Your task to perform on an android device: Open Youtube and go to the subscriptions tab Image 0: 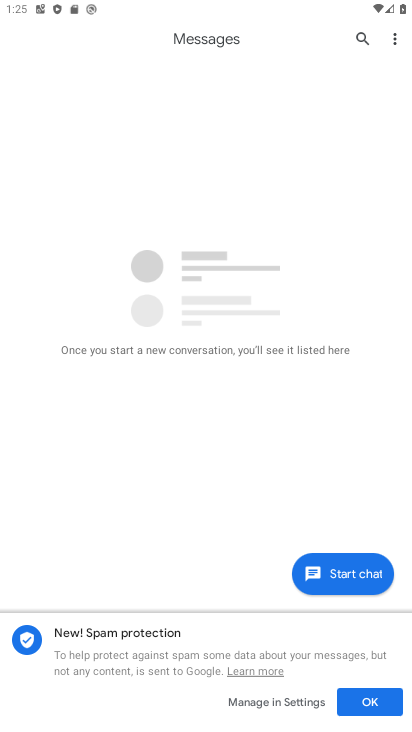
Step 0: press home button
Your task to perform on an android device: Open Youtube and go to the subscriptions tab Image 1: 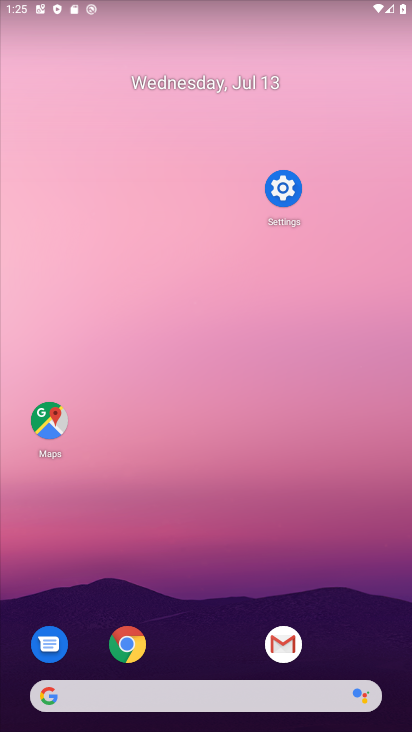
Step 1: drag from (227, 699) to (269, 202)
Your task to perform on an android device: Open Youtube and go to the subscriptions tab Image 2: 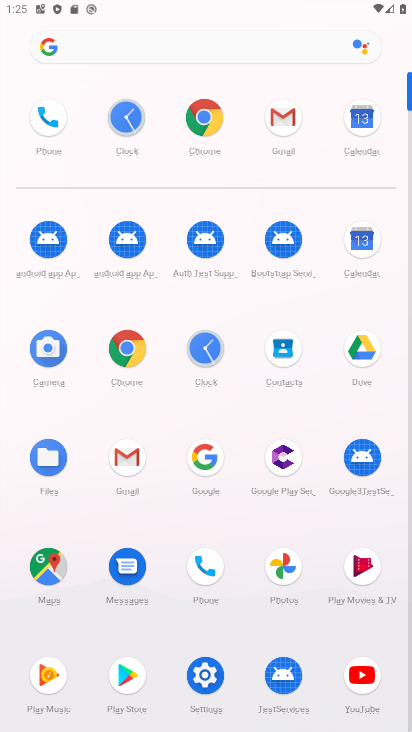
Step 2: click (351, 676)
Your task to perform on an android device: Open Youtube and go to the subscriptions tab Image 3: 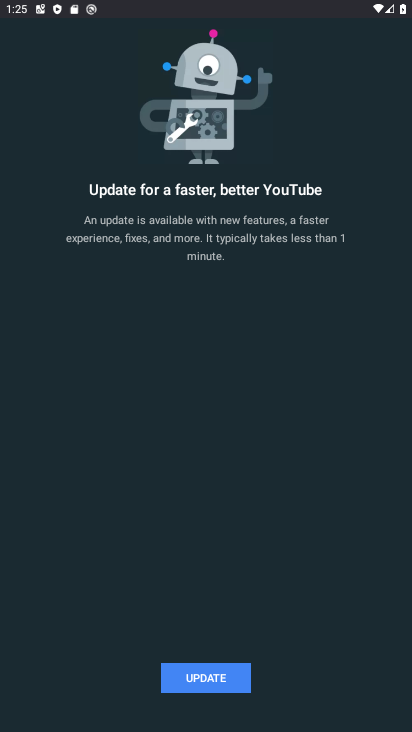
Step 3: click (214, 693)
Your task to perform on an android device: Open Youtube and go to the subscriptions tab Image 4: 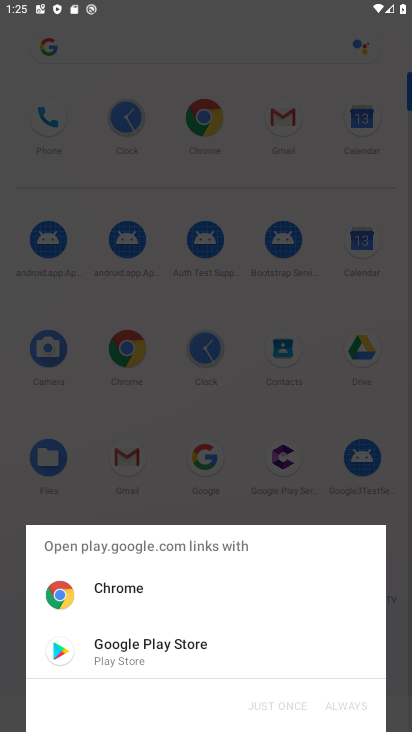
Step 4: click (211, 658)
Your task to perform on an android device: Open Youtube and go to the subscriptions tab Image 5: 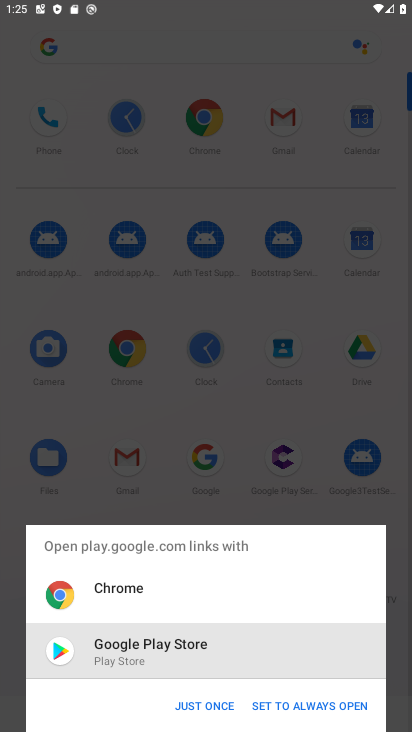
Step 5: click (192, 704)
Your task to perform on an android device: Open Youtube and go to the subscriptions tab Image 6: 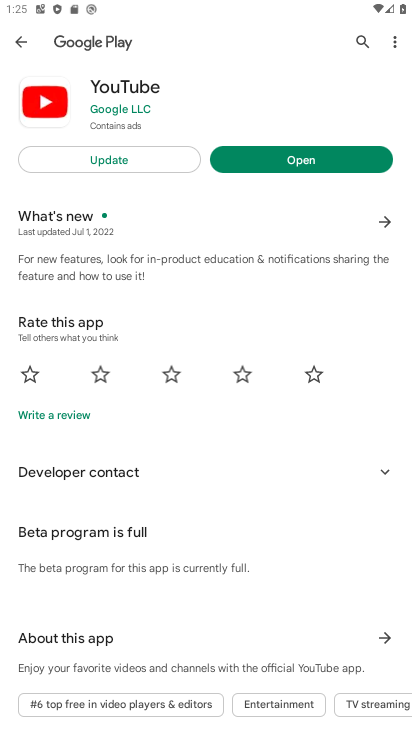
Step 6: click (282, 158)
Your task to perform on an android device: Open Youtube and go to the subscriptions tab Image 7: 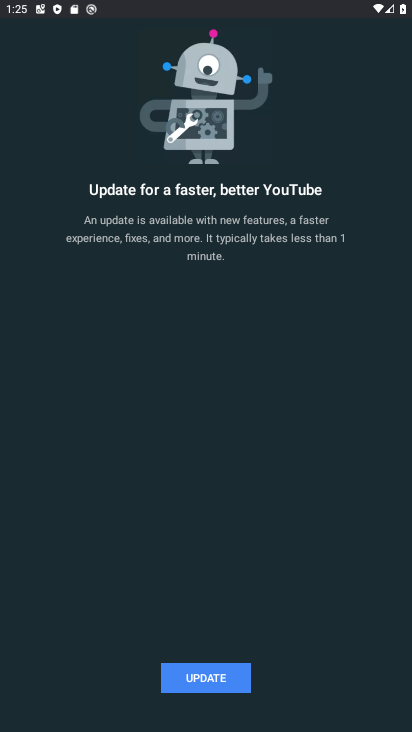
Step 7: click (209, 666)
Your task to perform on an android device: Open Youtube and go to the subscriptions tab Image 8: 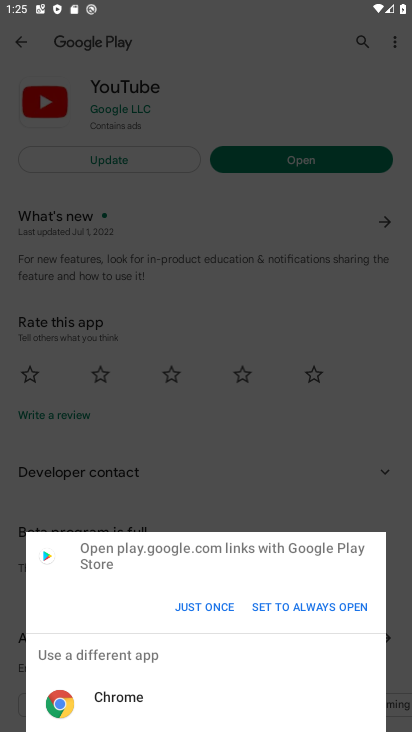
Step 8: click (201, 601)
Your task to perform on an android device: Open Youtube and go to the subscriptions tab Image 9: 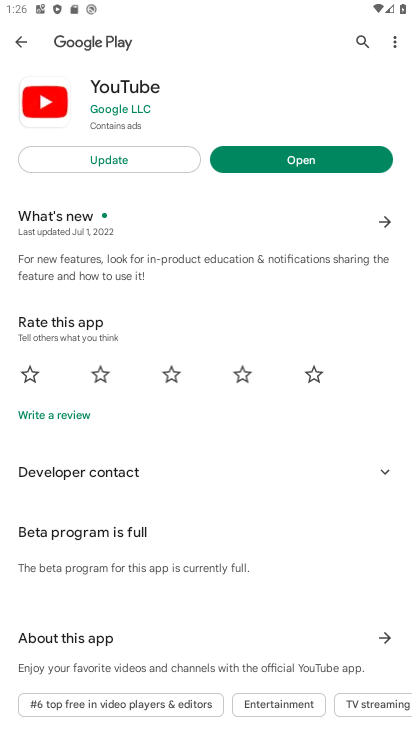
Step 9: click (108, 167)
Your task to perform on an android device: Open Youtube and go to the subscriptions tab Image 10: 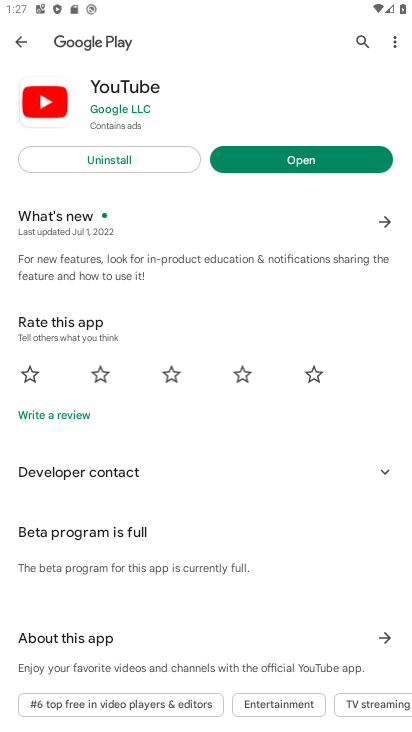
Step 10: click (243, 155)
Your task to perform on an android device: Open Youtube and go to the subscriptions tab Image 11: 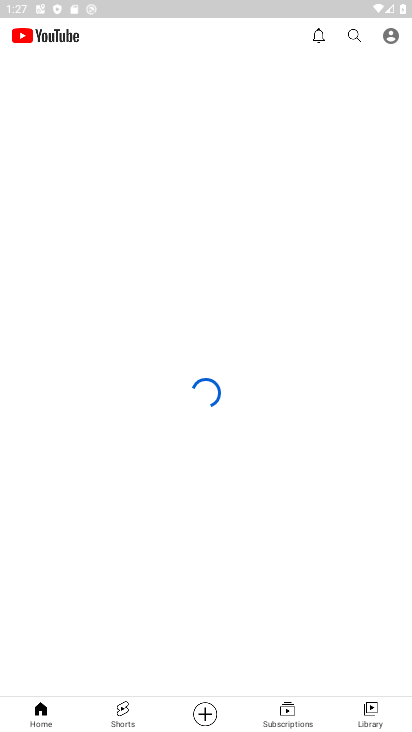
Step 11: click (290, 713)
Your task to perform on an android device: Open Youtube and go to the subscriptions tab Image 12: 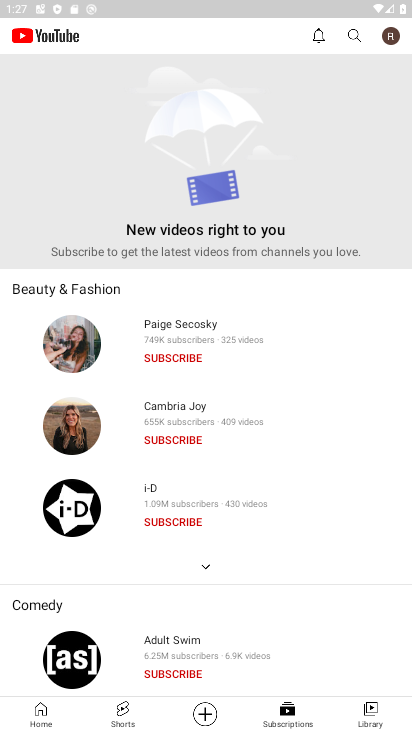
Step 12: task complete